Your task to perform on an android device: all mails in gmail Image 0: 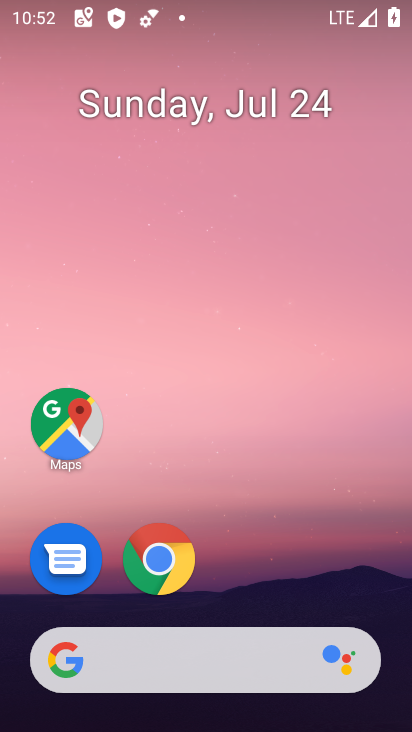
Step 0: drag from (237, 592) to (338, 51)
Your task to perform on an android device: all mails in gmail Image 1: 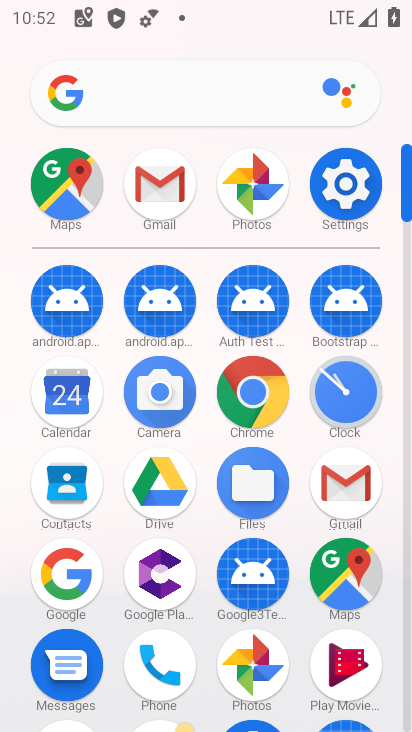
Step 1: click (160, 191)
Your task to perform on an android device: all mails in gmail Image 2: 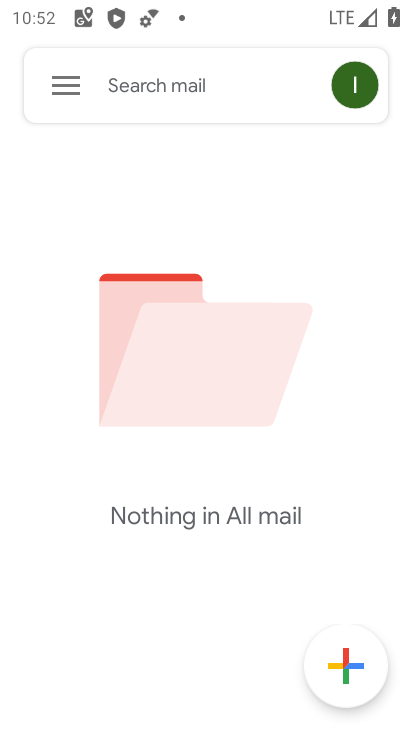
Step 2: task complete